Your task to perform on an android device: Show the shopping cart on amazon. Search for "jbl charge 4" on amazon, select the first entry, add it to the cart, then select checkout. Image 0: 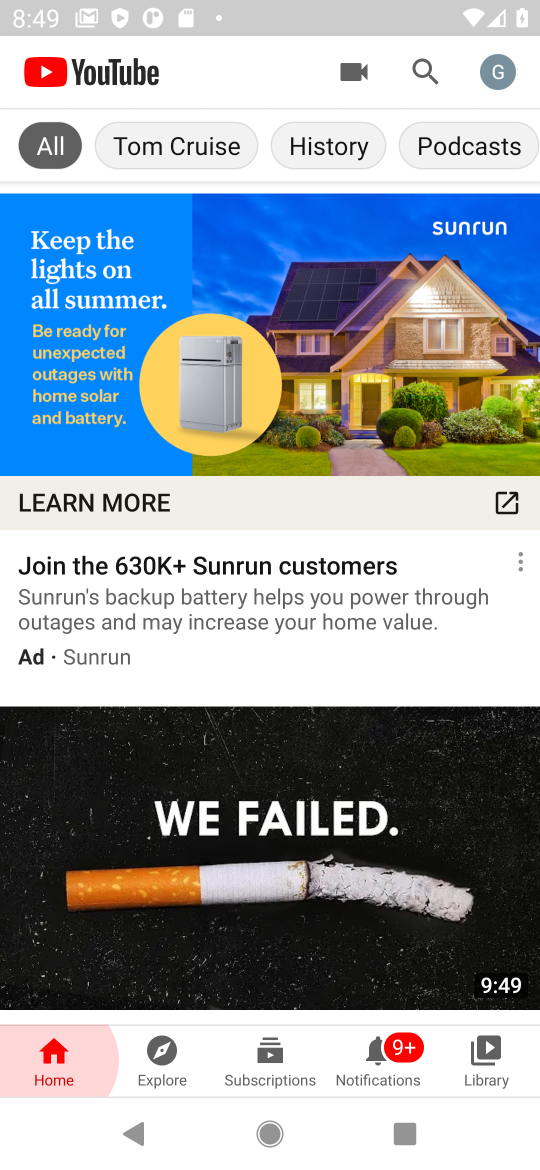
Step 0: press home button
Your task to perform on an android device: Show the shopping cart on amazon. Search for "jbl charge 4" on amazon, select the first entry, add it to the cart, then select checkout. Image 1: 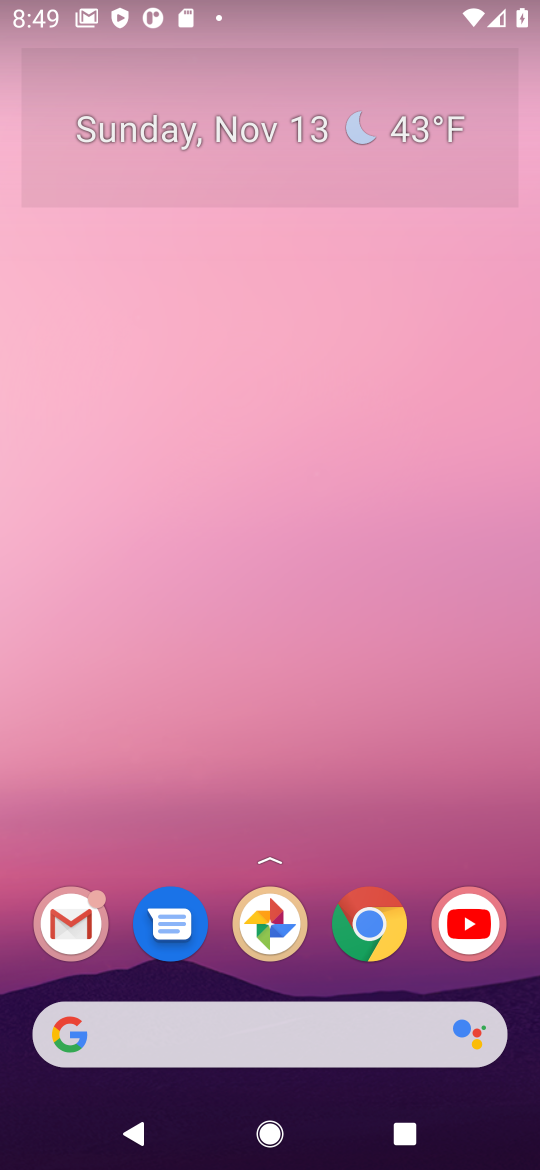
Step 1: click (382, 928)
Your task to perform on an android device: Show the shopping cart on amazon. Search for "jbl charge 4" on amazon, select the first entry, add it to the cart, then select checkout. Image 2: 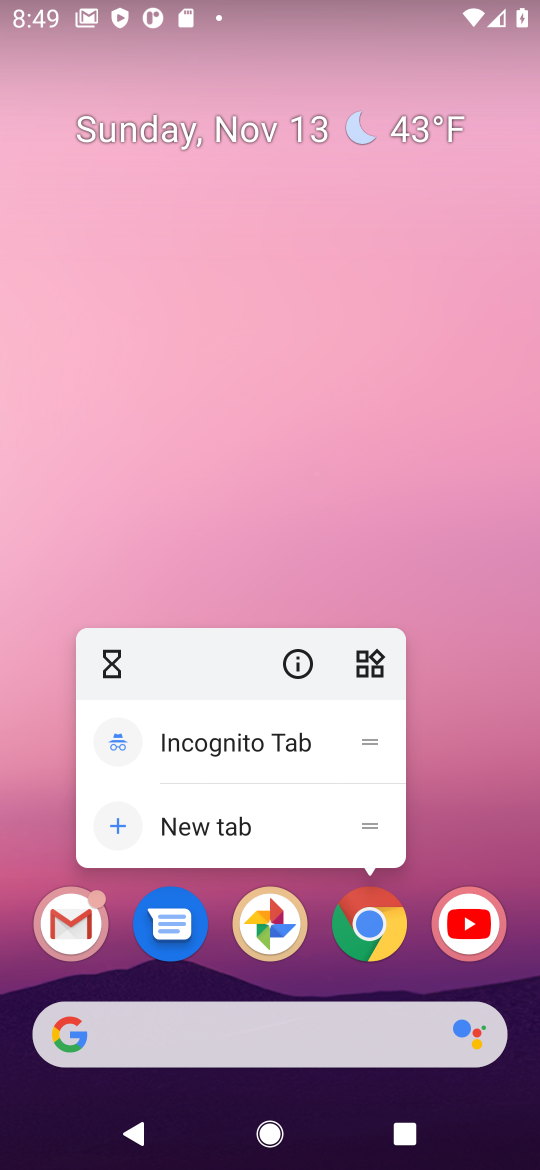
Step 2: click (362, 931)
Your task to perform on an android device: Show the shopping cart on amazon. Search for "jbl charge 4" on amazon, select the first entry, add it to the cart, then select checkout. Image 3: 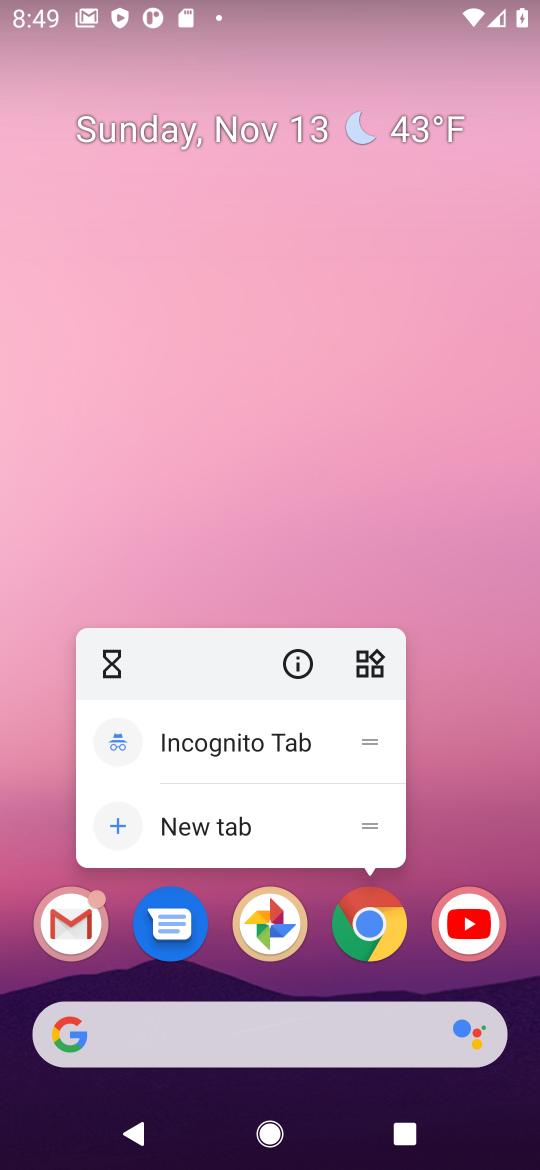
Step 3: click (380, 928)
Your task to perform on an android device: Show the shopping cart on amazon. Search for "jbl charge 4" on amazon, select the first entry, add it to the cart, then select checkout. Image 4: 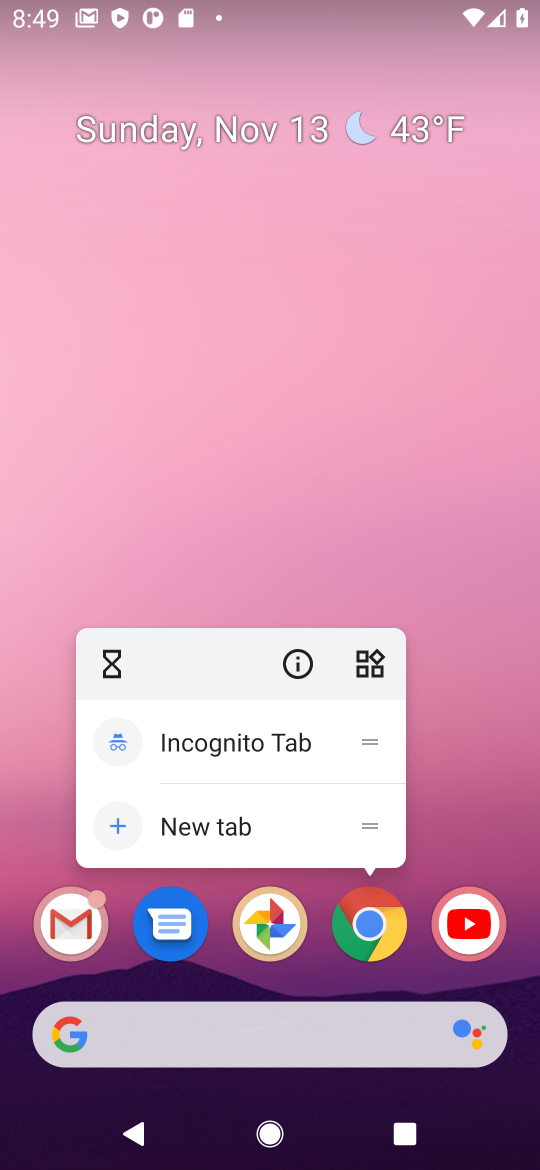
Step 4: click (380, 932)
Your task to perform on an android device: Show the shopping cart on amazon. Search for "jbl charge 4" on amazon, select the first entry, add it to the cart, then select checkout. Image 5: 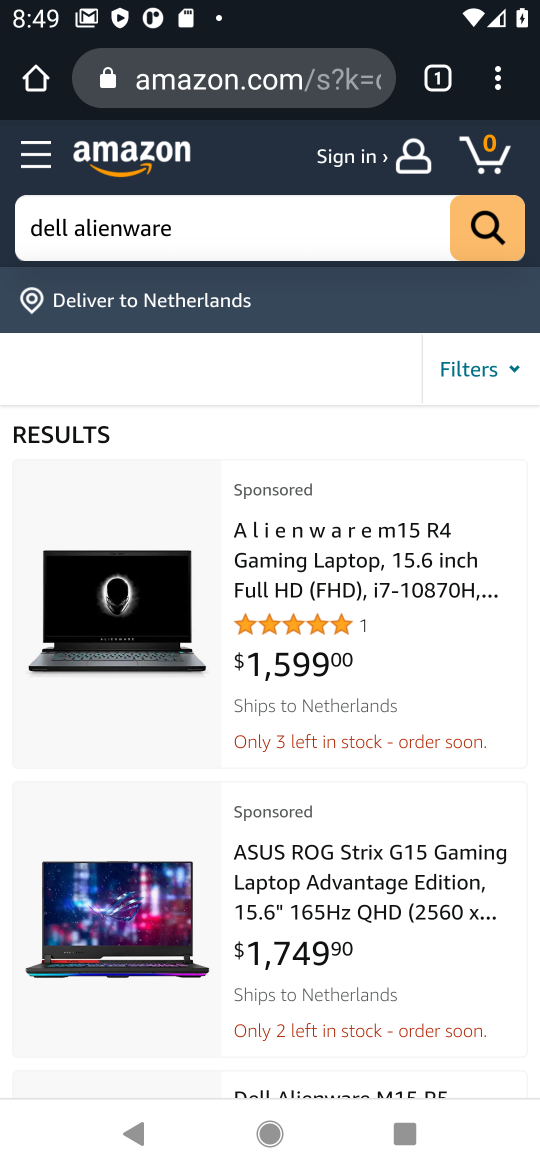
Step 5: click (205, 225)
Your task to perform on an android device: Show the shopping cart on amazon. Search for "jbl charge 4" on amazon, select the first entry, add it to the cart, then select checkout. Image 6: 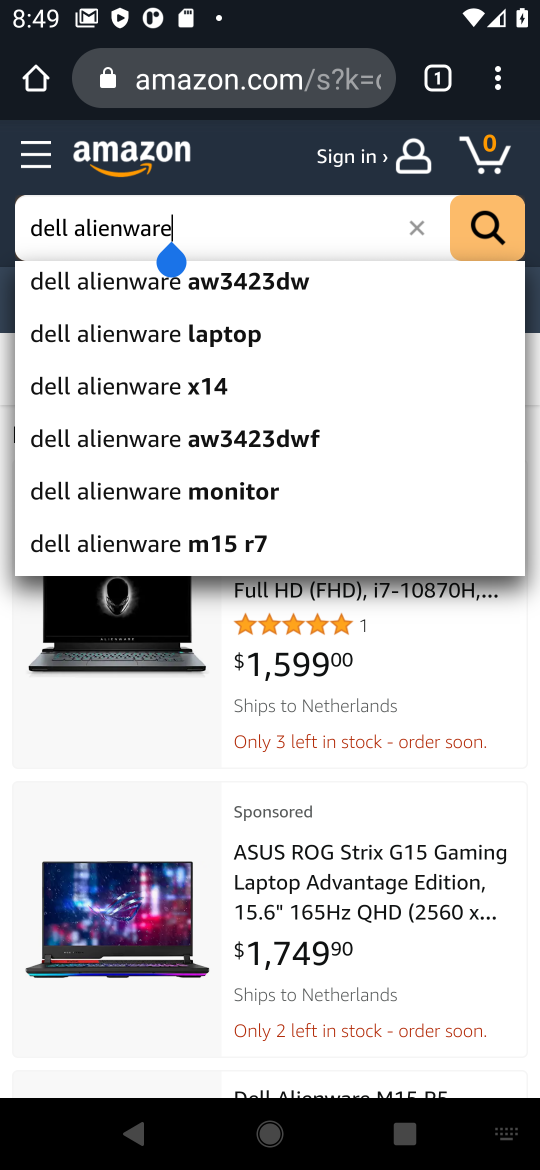
Step 6: click (408, 217)
Your task to perform on an android device: Show the shopping cart on amazon. Search for "jbl charge 4" on amazon, select the first entry, add it to the cart, then select checkout. Image 7: 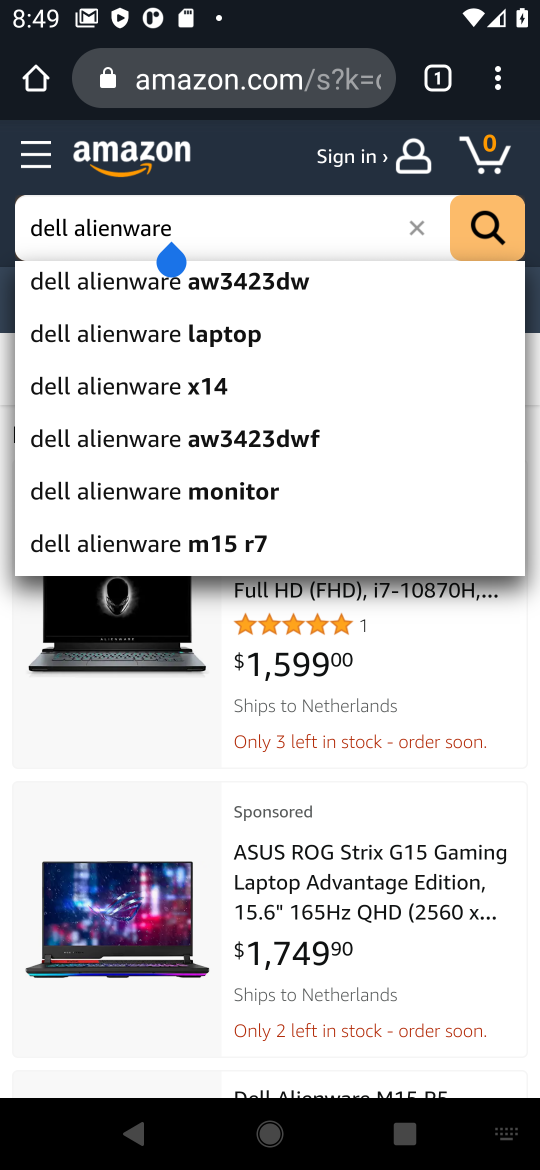
Step 7: click (409, 225)
Your task to perform on an android device: Show the shopping cart on amazon. Search for "jbl charge 4" on amazon, select the first entry, add it to the cart, then select checkout. Image 8: 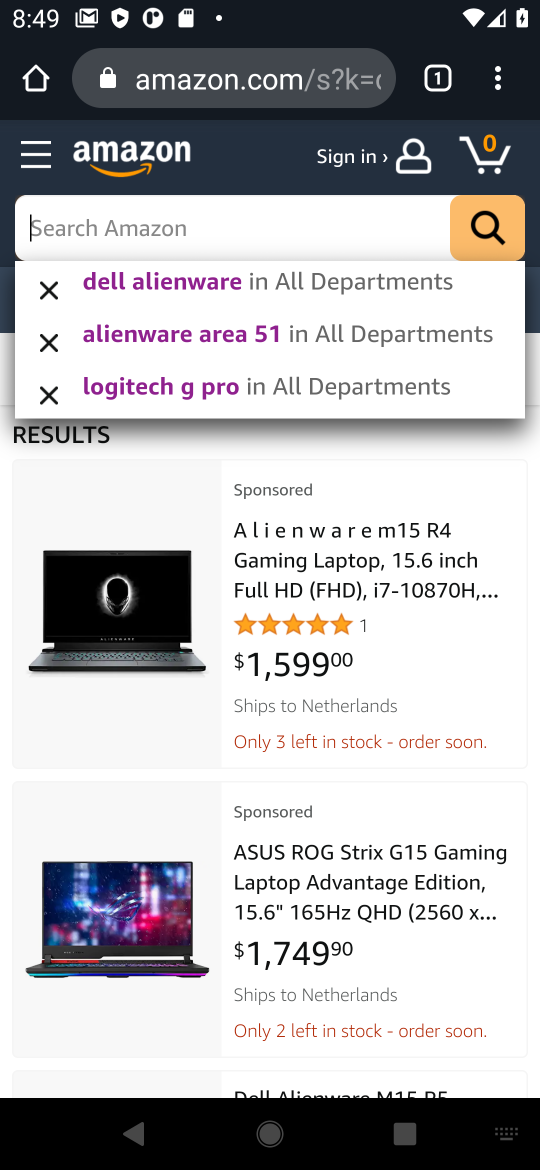
Step 8: type "jbl charge 4"
Your task to perform on an android device: Show the shopping cart on amazon. Search for "jbl charge 4" on amazon, select the first entry, add it to the cart, then select checkout. Image 9: 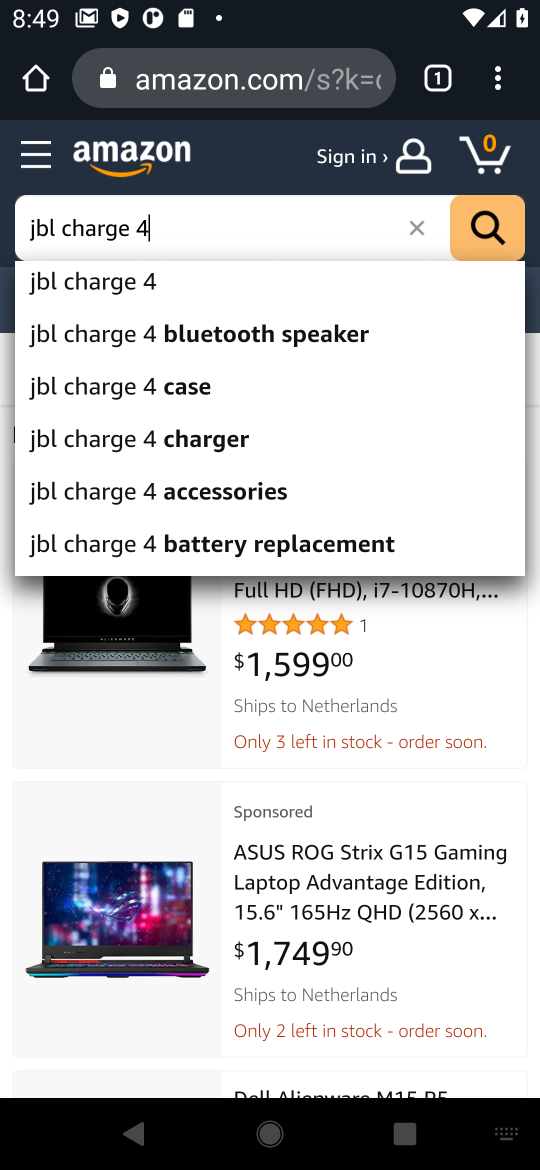
Step 9: press enter
Your task to perform on an android device: Show the shopping cart on amazon. Search for "jbl charge 4" on amazon, select the first entry, add it to the cart, then select checkout. Image 10: 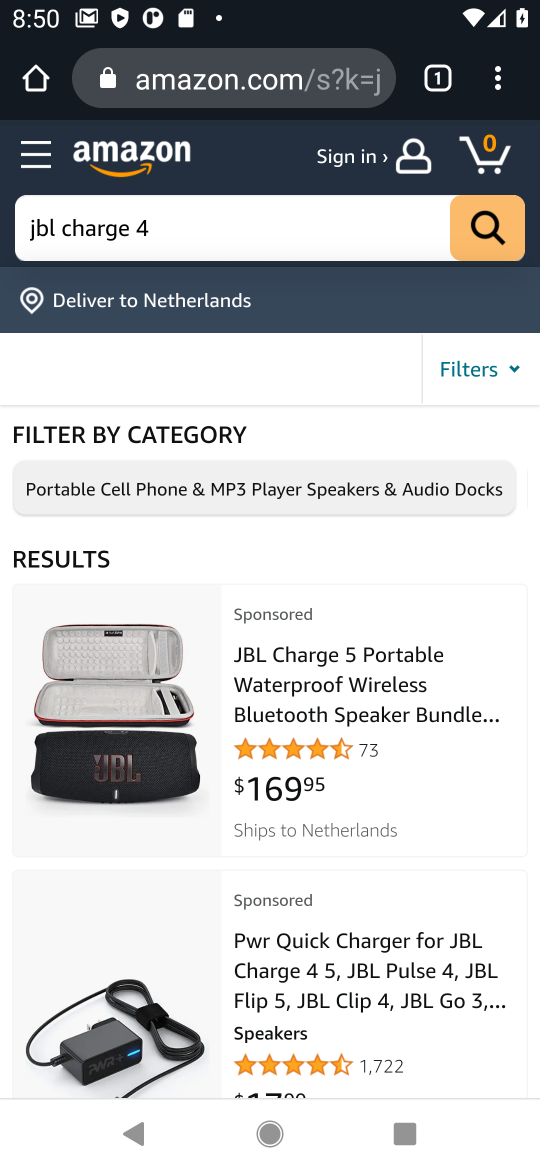
Step 10: task complete